Your task to perform on an android device: open app "McDonald's" (install if not already installed) Image 0: 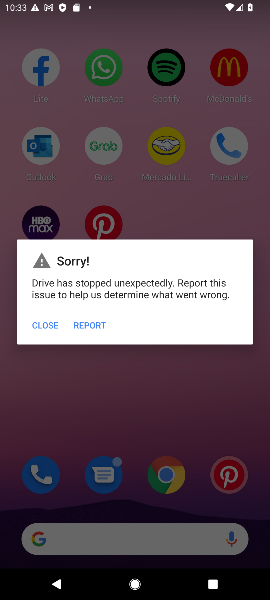
Step 0: click (193, 210)
Your task to perform on an android device: open app "McDonald's" (install if not already installed) Image 1: 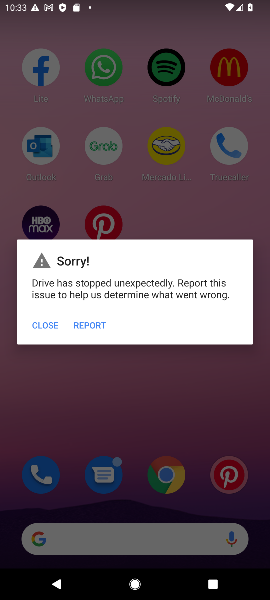
Step 1: click (42, 329)
Your task to perform on an android device: open app "McDonald's" (install if not already installed) Image 2: 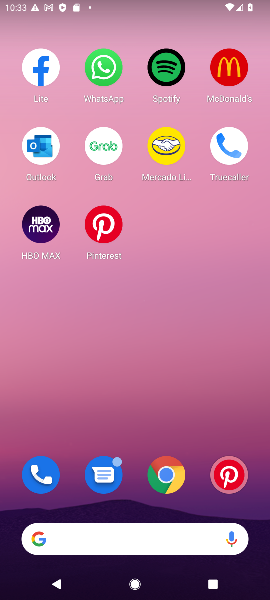
Step 2: drag from (160, 520) to (89, 0)
Your task to perform on an android device: open app "McDonald's" (install if not already installed) Image 3: 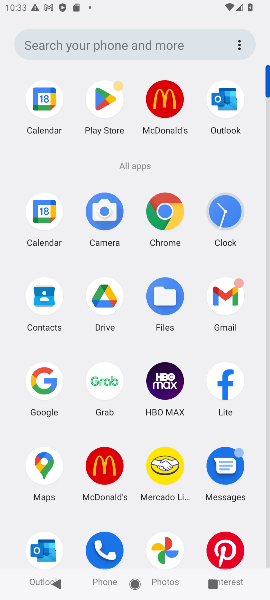
Step 3: click (166, 94)
Your task to perform on an android device: open app "McDonald's" (install if not already installed) Image 4: 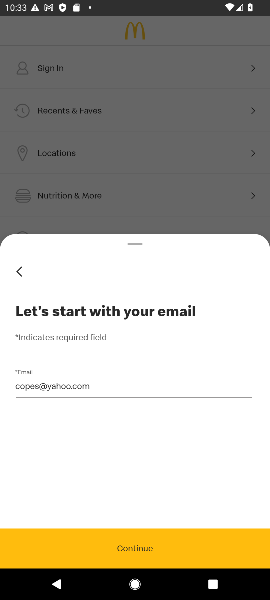
Step 4: task complete